Your task to perform on an android device: Search for pizza restaurants on Maps Image 0: 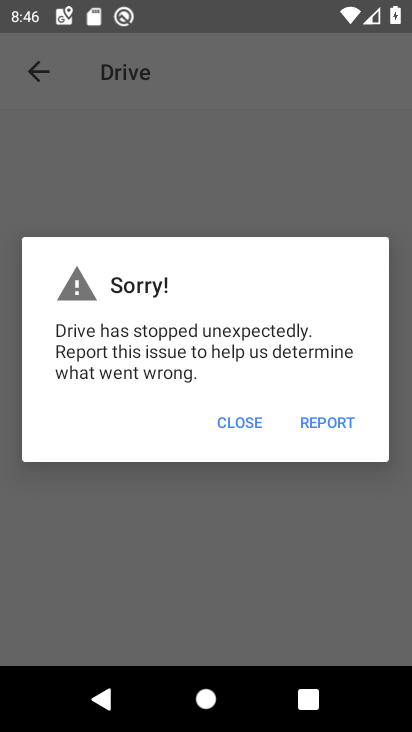
Step 0: press home button
Your task to perform on an android device: Search for pizza restaurants on Maps Image 1: 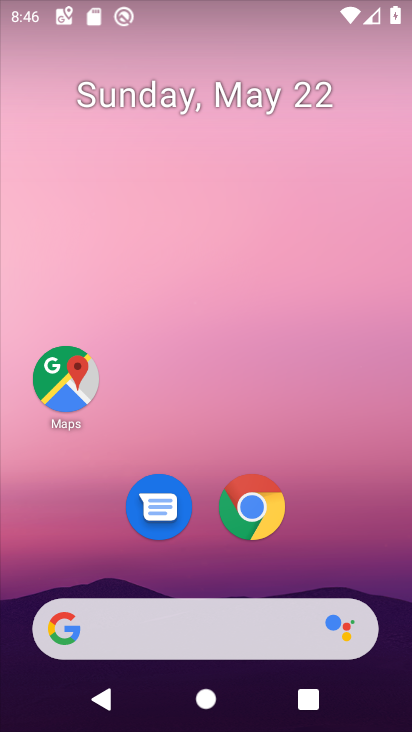
Step 1: click (55, 384)
Your task to perform on an android device: Search for pizza restaurants on Maps Image 2: 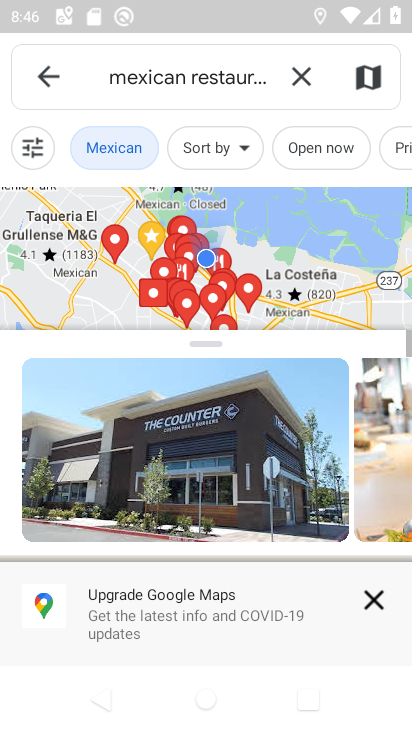
Step 2: click (309, 63)
Your task to perform on an android device: Search for pizza restaurants on Maps Image 3: 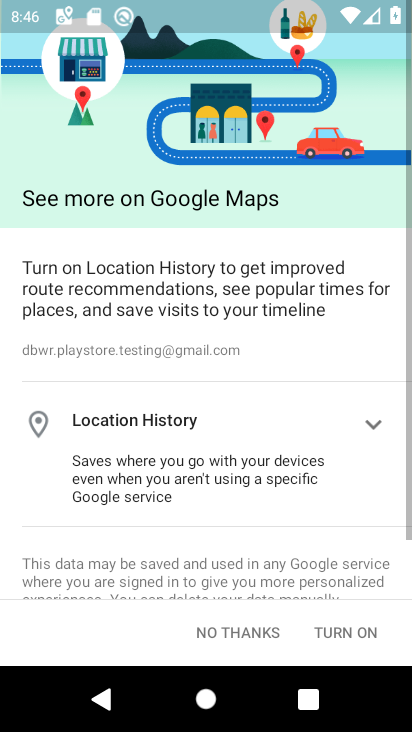
Step 3: click (192, 80)
Your task to perform on an android device: Search for pizza restaurants on Maps Image 4: 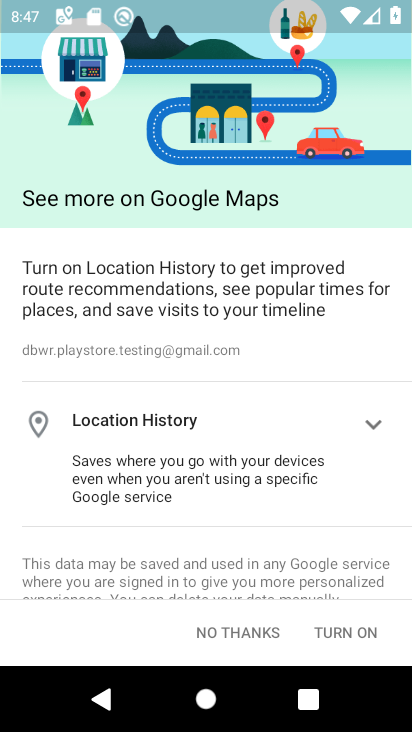
Step 4: click (349, 632)
Your task to perform on an android device: Search for pizza restaurants on Maps Image 5: 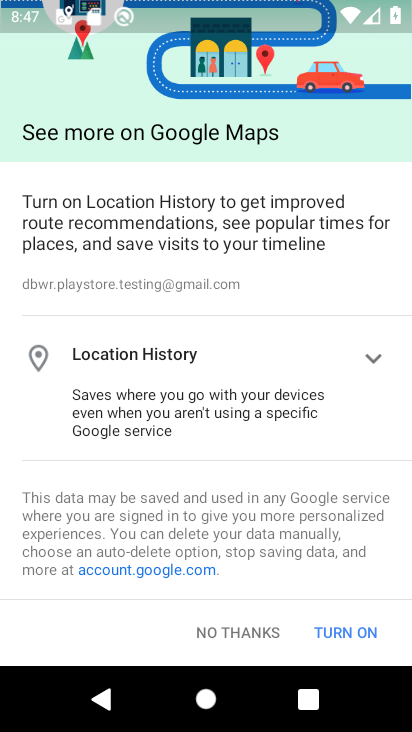
Step 5: click (349, 632)
Your task to perform on an android device: Search for pizza restaurants on Maps Image 6: 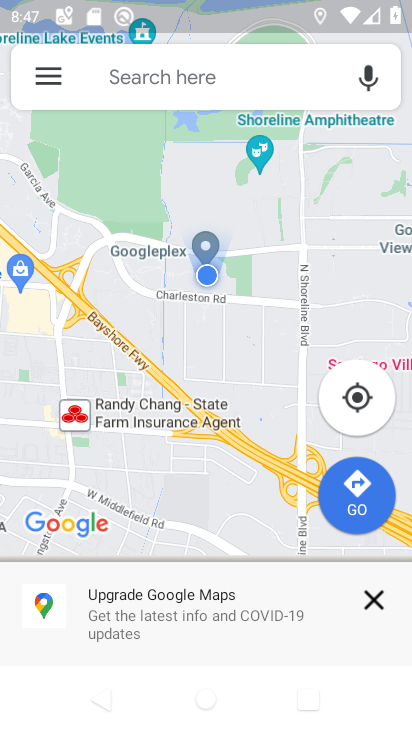
Step 6: click (131, 60)
Your task to perform on an android device: Search for pizza restaurants on Maps Image 7: 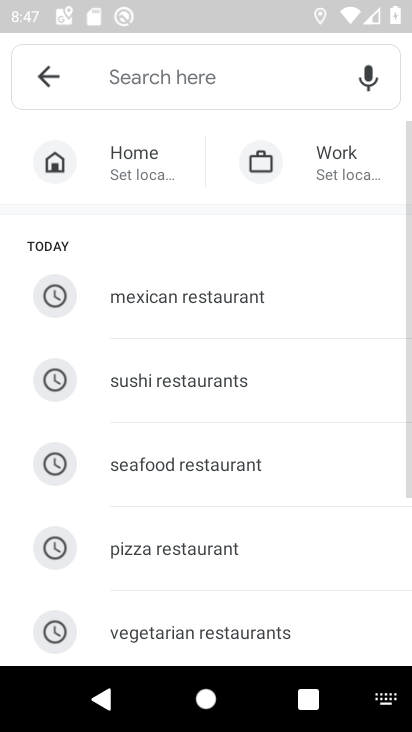
Step 7: click (145, 561)
Your task to perform on an android device: Search for pizza restaurants on Maps Image 8: 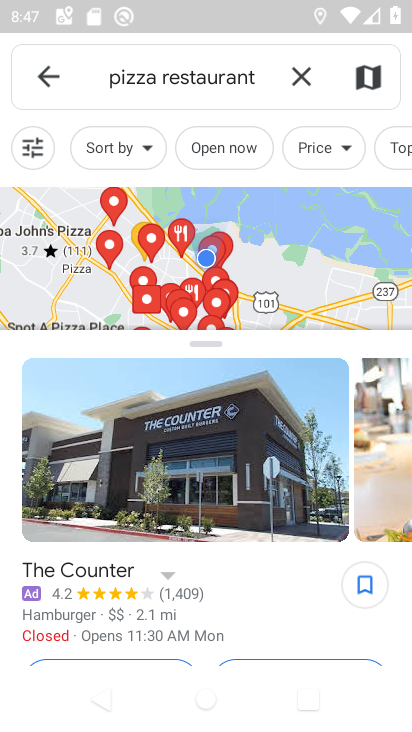
Step 8: task complete